Your task to perform on an android device: turn pop-ups off in chrome Image 0: 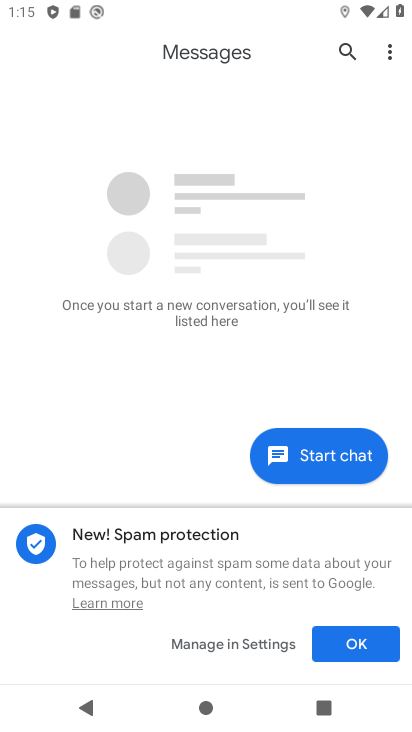
Step 0: press home button
Your task to perform on an android device: turn pop-ups off in chrome Image 1: 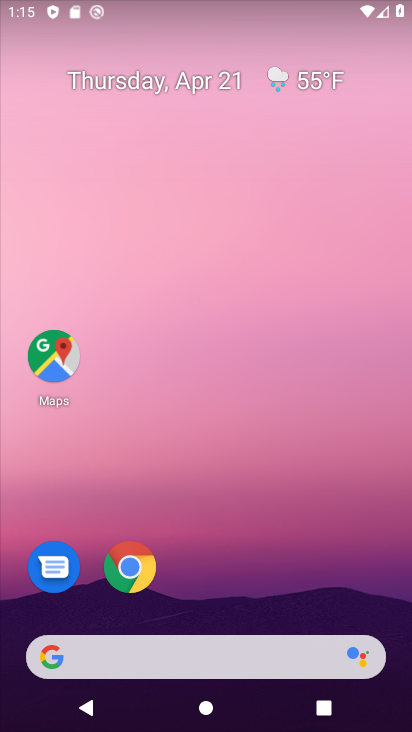
Step 1: click (127, 562)
Your task to perform on an android device: turn pop-ups off in chrome Image 2: 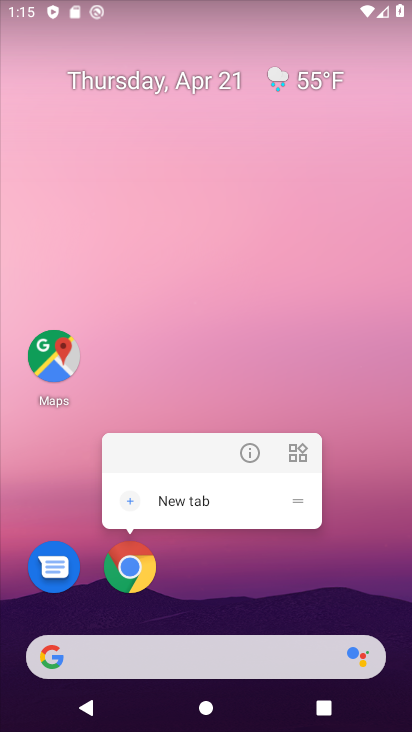
Step 2: click (132, 555)
Your task to perform on an android device: turn pop-ups off in chrome Image 3: 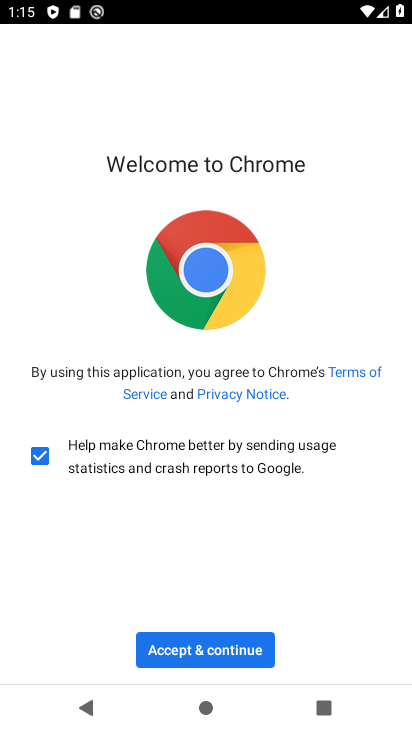
Step 3: click (202, 645)
Your task to perform on an android device: turn pop-ups off in chrome Image 4: 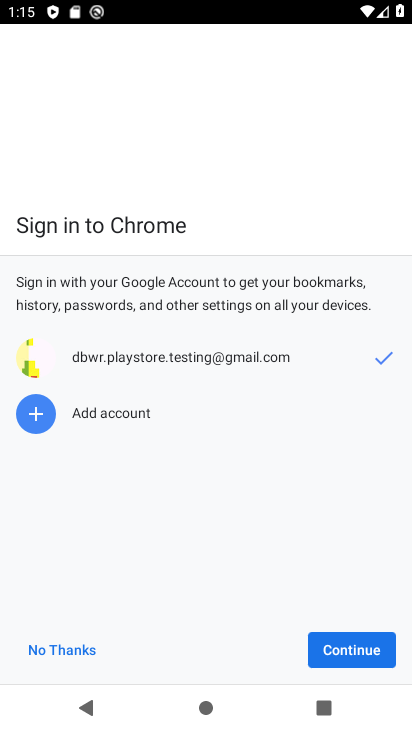
Step 4: click (354, 646)
Your task to perform on an android device: turn pop-ups off in chrome Image 5: 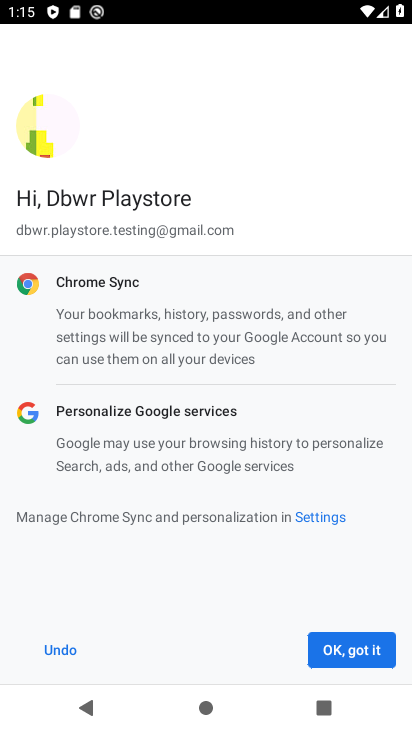
Step 5: click (352, 646)
Your task to perform on an android device: turn pop-ups off in chrome Image 6: 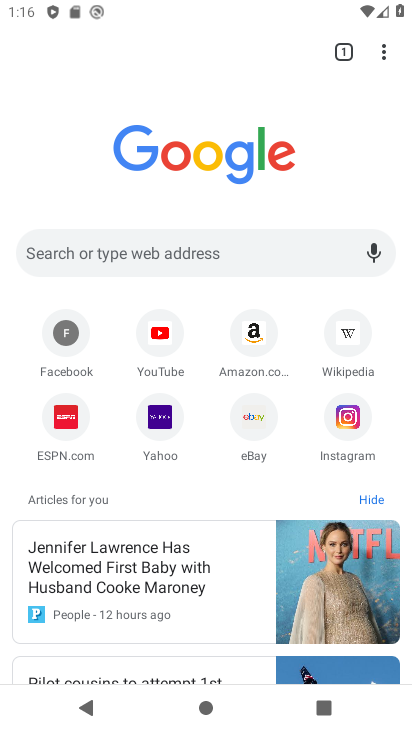
Step 6: click (380, 49)
Your task to perform on an android device: turn pop-ups off in chrome Image 7: 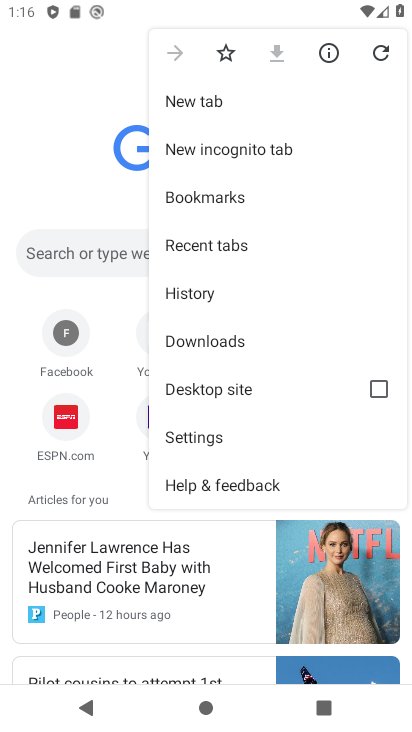
Step 7: click (235, 436)
Your task to perform on an android device: turn pop-ups off in chrome Image 8: 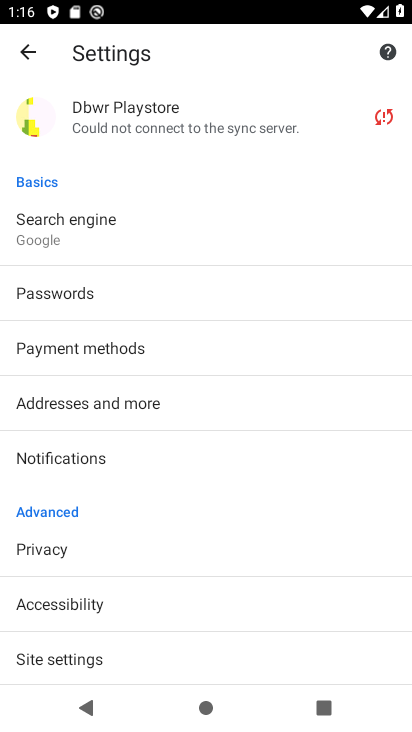
Step 8: drag from (227, 639) to (229, 146)
Your task to perform on an android device: turn pop-ups off in chrome Image 9: 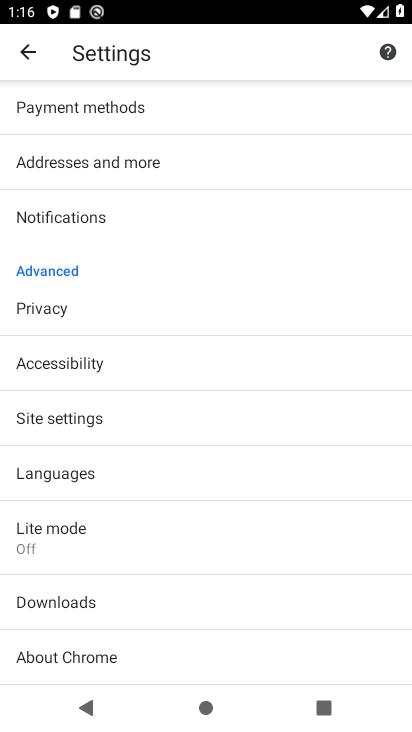
Step 9: click (128, 416)
Your task to perform on an android device: turn pop-ups off in chrome Image 10: 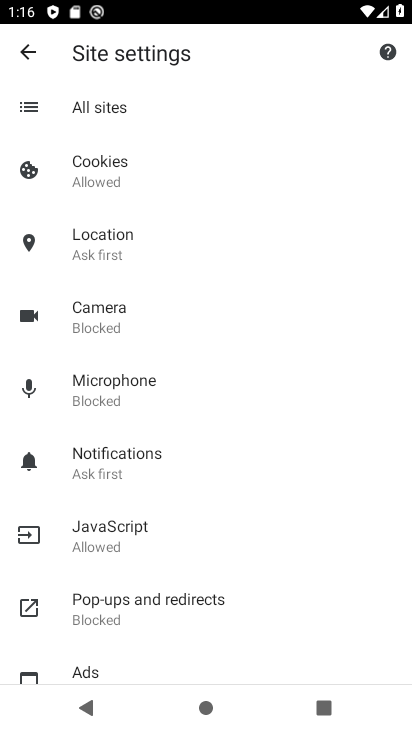
Step 10: click (148, 610)
Your task to perform on an android device: turn pop-ups off in chrome Image 11: 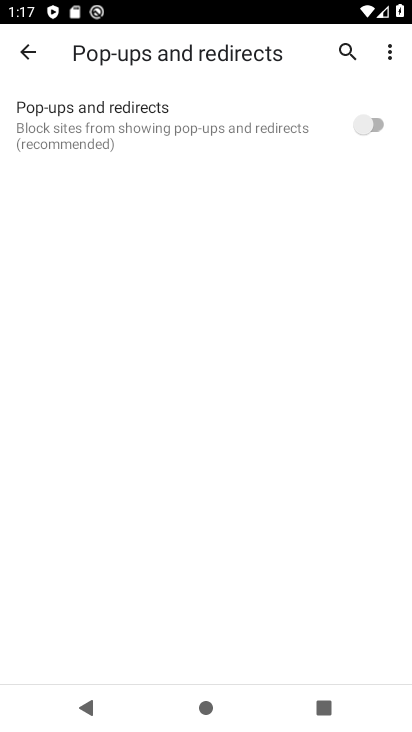
Step 11: task complete